Your task to perform on an android device: open a bookmark in the chrome app Image 0: 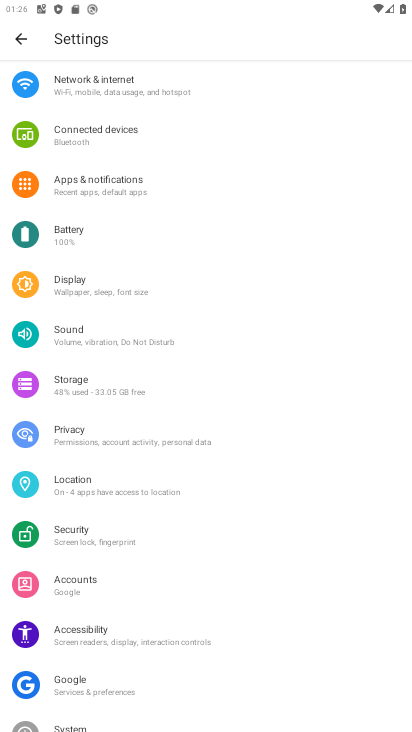
Step 0: press home button
Your task to perform on an android device: open a bookmark in the chrome app Image 1: 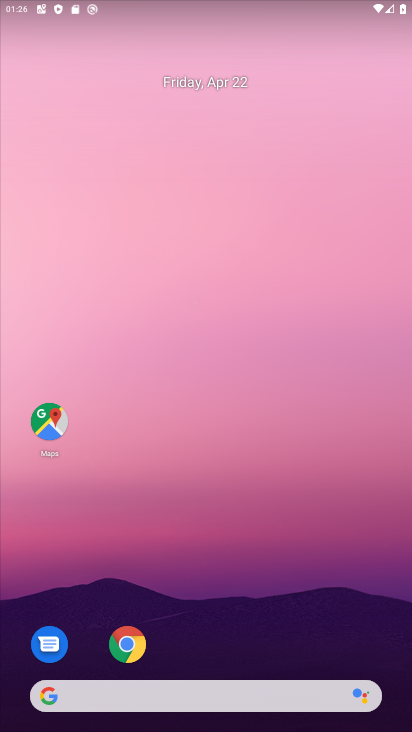
Step 1: click (126, 641)
Your task to perform on an android device: open a bookmark in the chrome app Image 2: 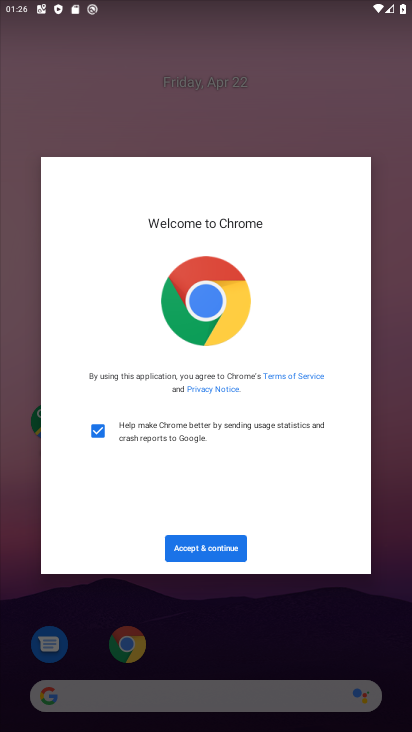
Step 2: click (206, 551)
Your task to perform on an android device: open a bookmark in the chrome app Image 3: 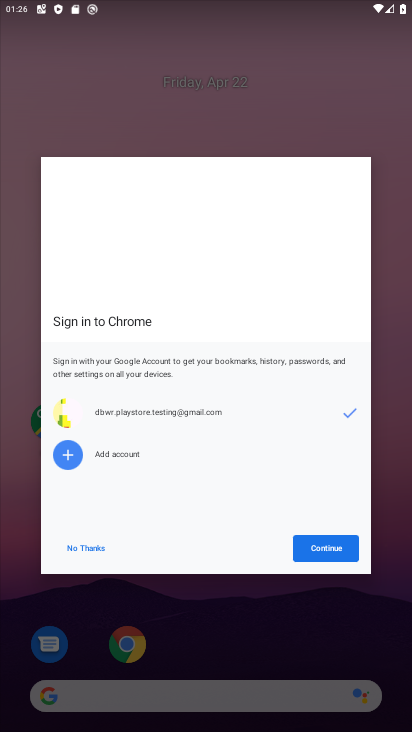
Step 3: click (326, 554)
Your task to perform on an android device: open a bookmark in the chrome app Image 4: 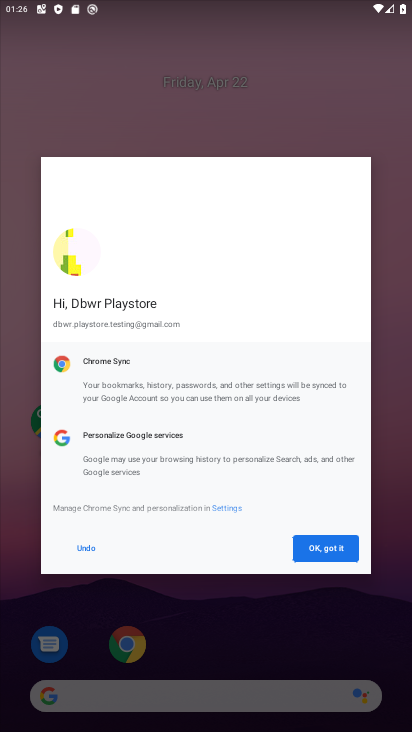
Step 4: click (326, 554)
Your task to perform on an android device: open a bookmark in the chrome app Image 5: 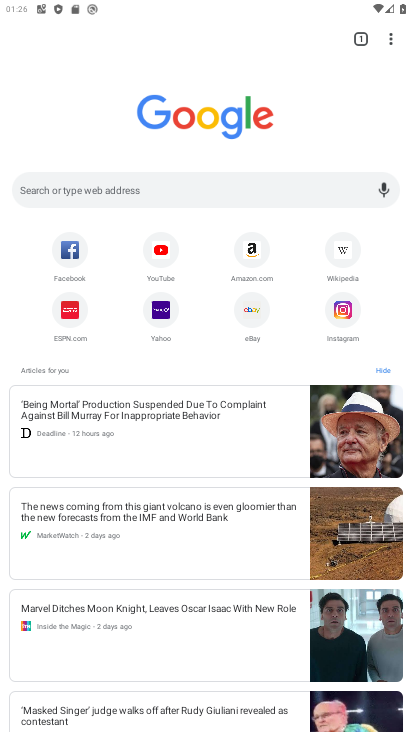
Step 5: task complete